Your task to perform on an android device: install app "WhatsApp Messenger" Image 0: 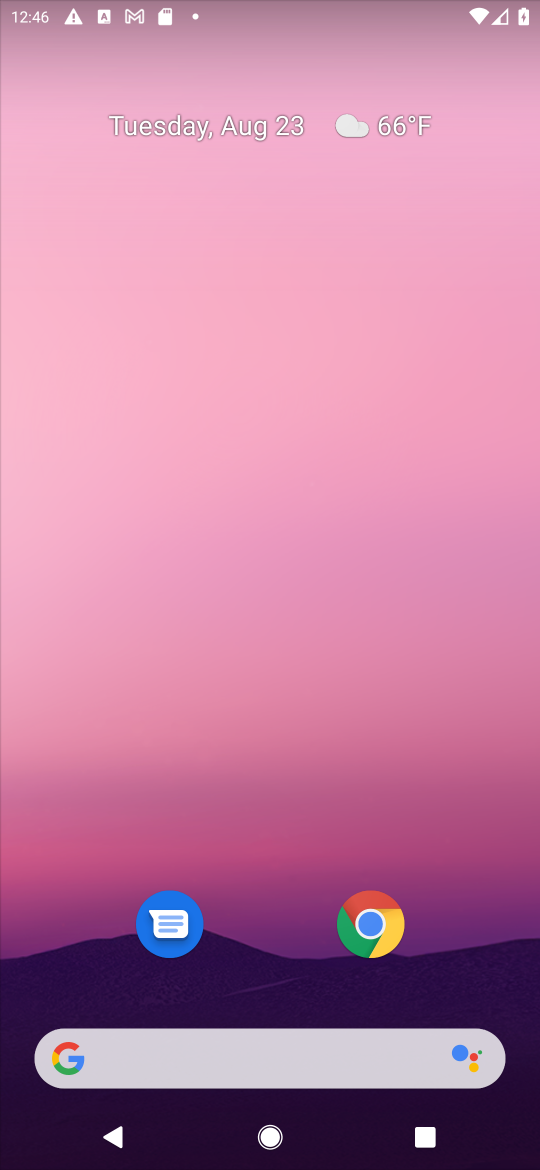
Step 0: press home button
Your task to perform on an android device: install app "WhatsApp Messenger" Image 1: 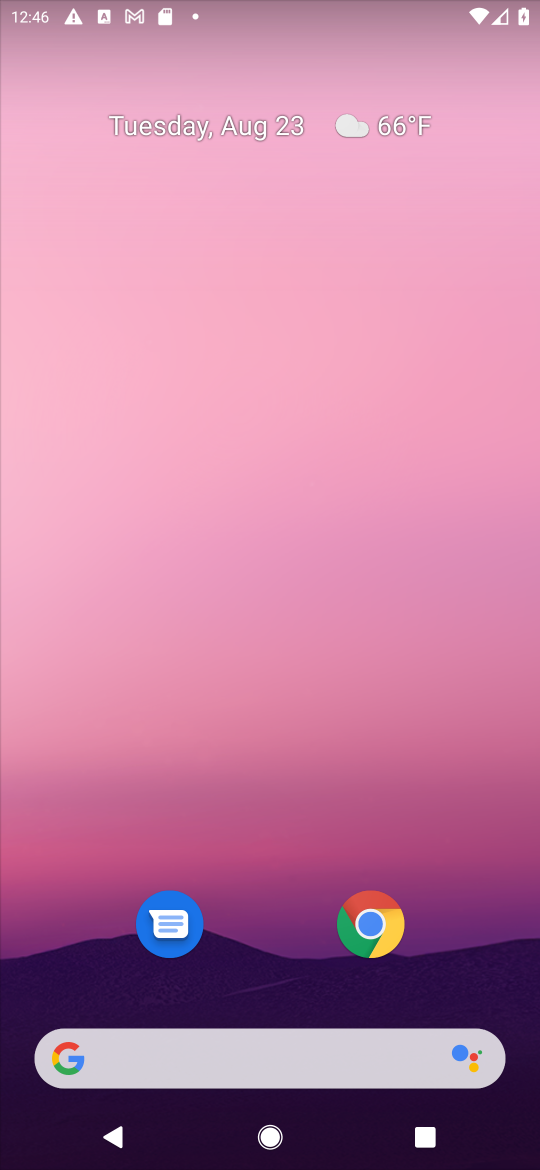
Step 1: drag from (463, 980) to (470, 145)
Your task to perform on an android device: install app "WhatsApp Messenger" Image 2: 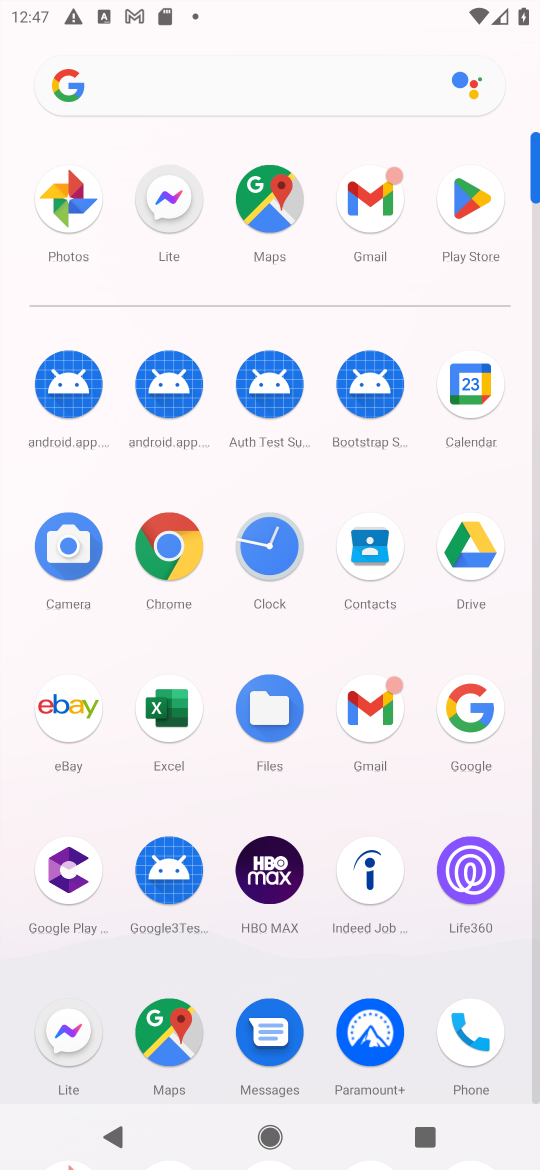
Step 2: click (466, 192)
Your task to perform on an android device: install app "WhatsApp Messenger" Image 3: 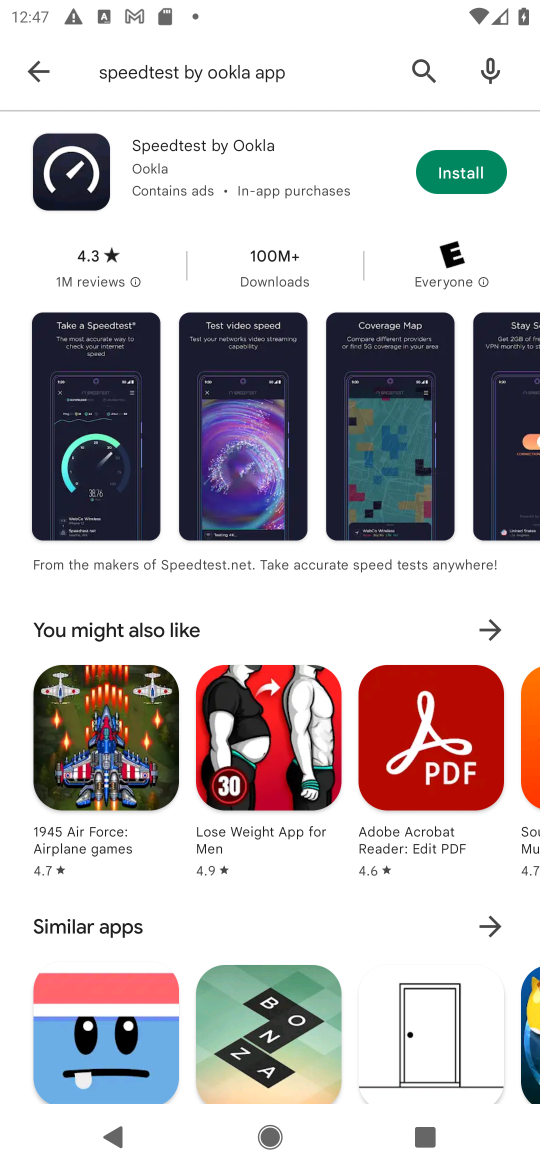
Step 3: press back button
Your task to perform on an android device: install app "WhatsApp Messenger" Image 4: 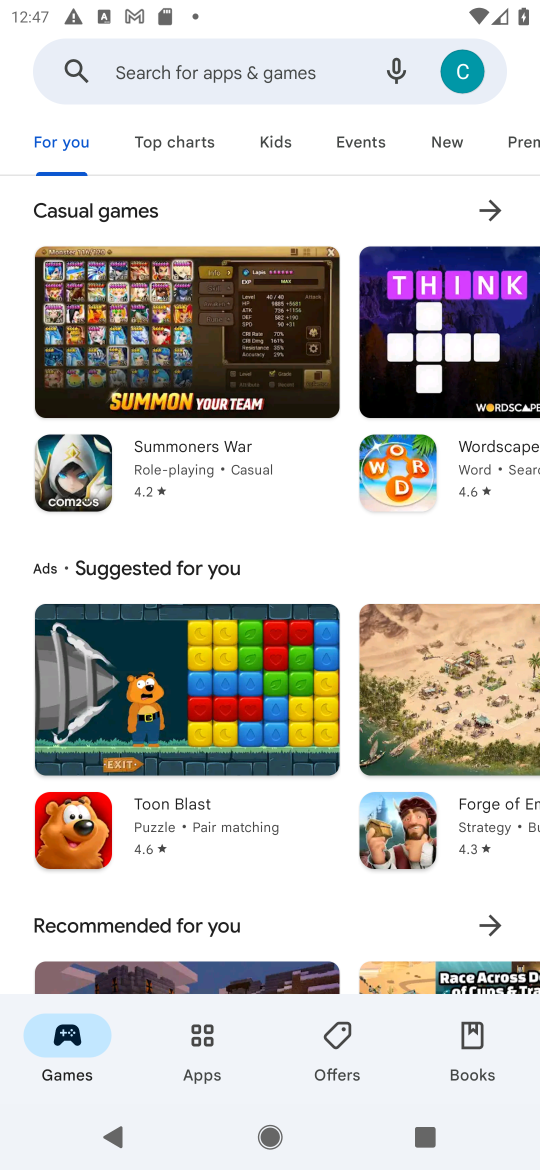
Step 4: click (220, 63)
Your task to perform on an android device: install app "WhatsApp Messenger" Image 5: 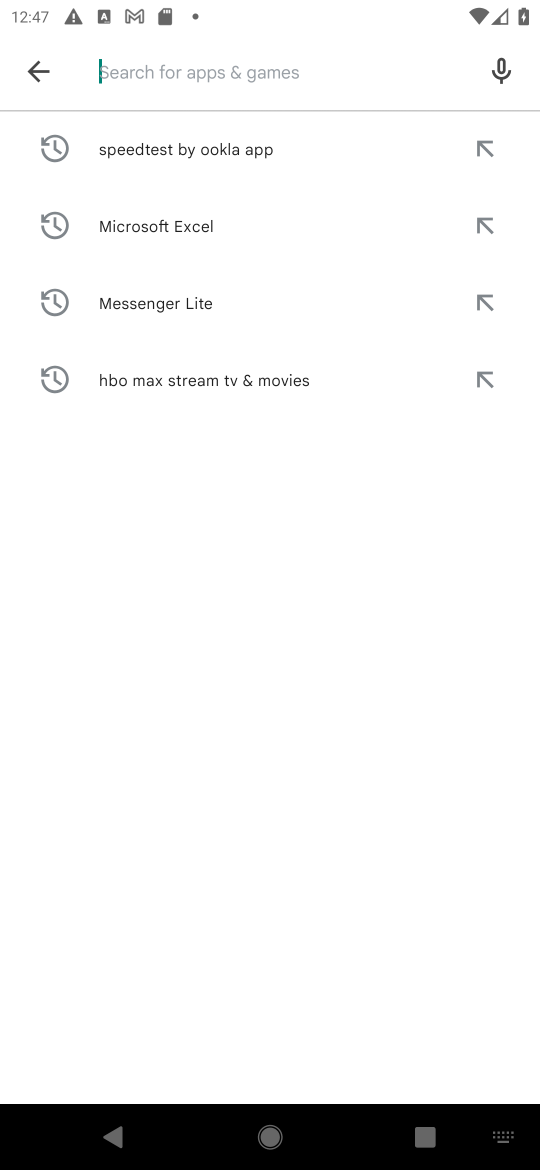
Step 5: type "WhatsApp Messenger"
Your task to perform on an android device: install app "WhatsApp Messenger" Image 6: 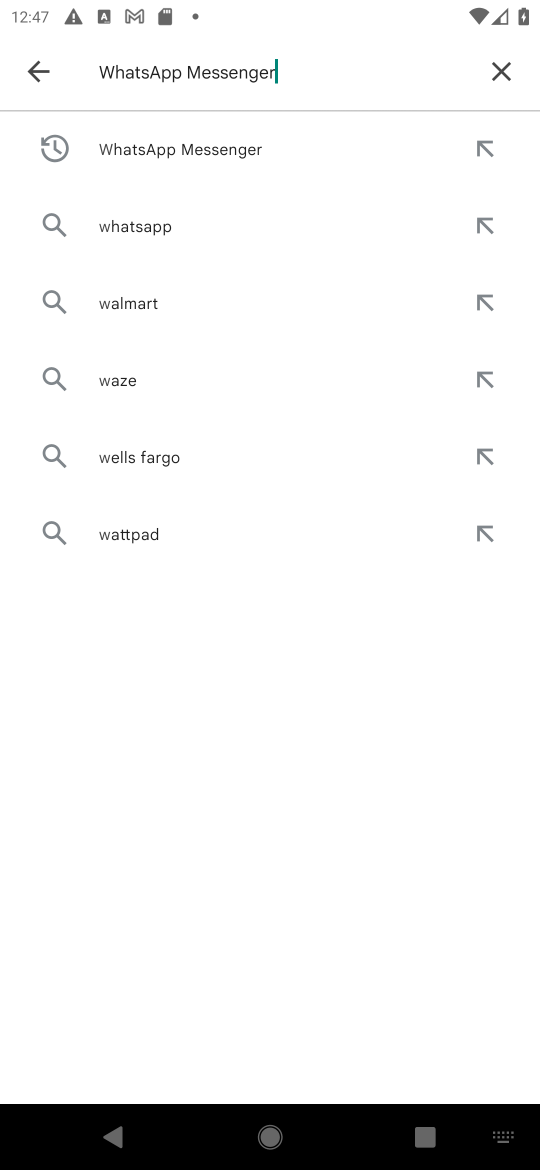
Step 6: press enter
Your task to perform on an android device: install app "WhatsApp Messenger" Image 7: 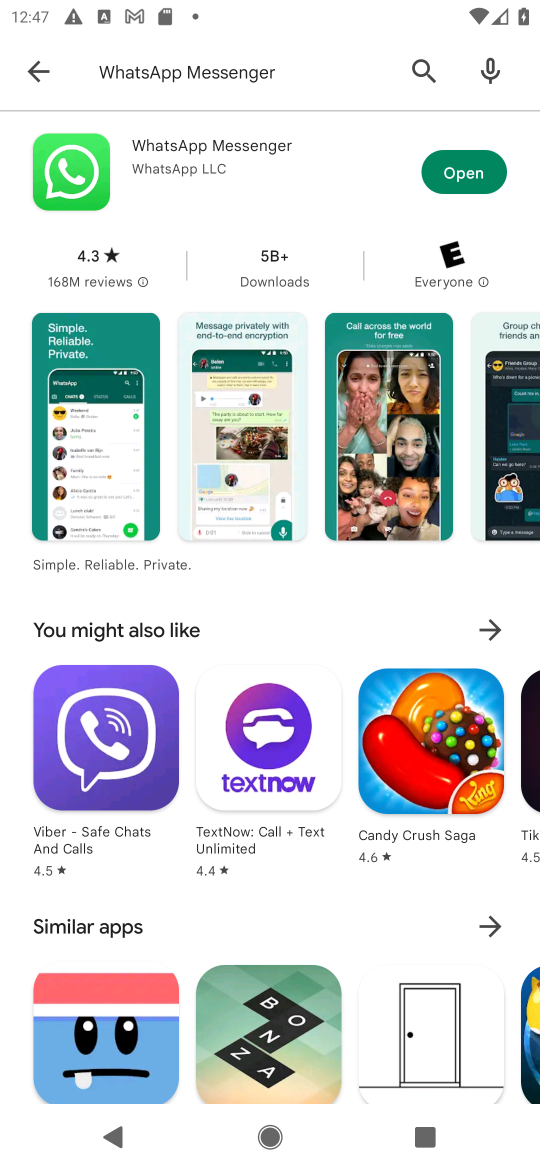
Step 7: task complete